Your task to perform on an android device: Open privacy settings Image 0: 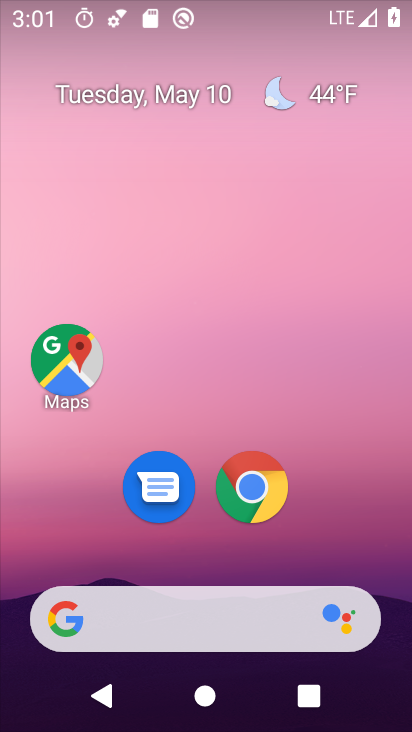
Step 0: click (247, 481)
Your task to perform on an android device: Open privacy settings Image 1: 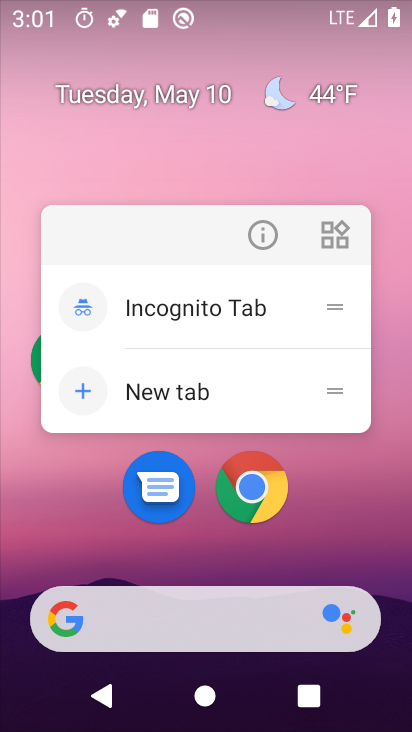
Step 1: click (253, 482)
Your task to perform on an android device: Open privacy settings Image 2: 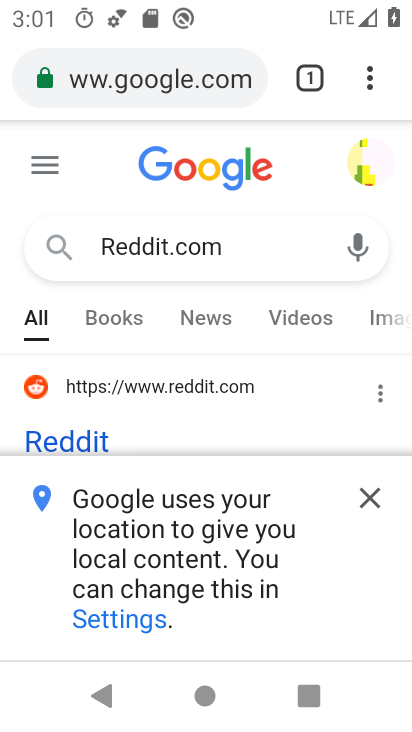
Step 2: click (370, 74)
Your task to perform on an android device: Open privacy settings Image 3: 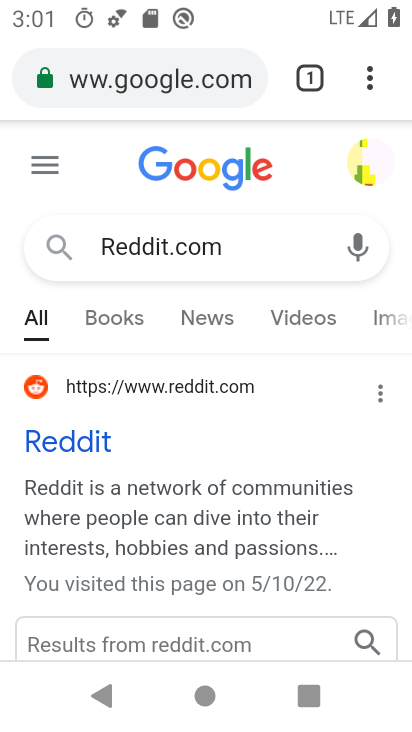
Step 3: click (368, 75)
Your task to perform on an android device: Open privacy settings Image 4: 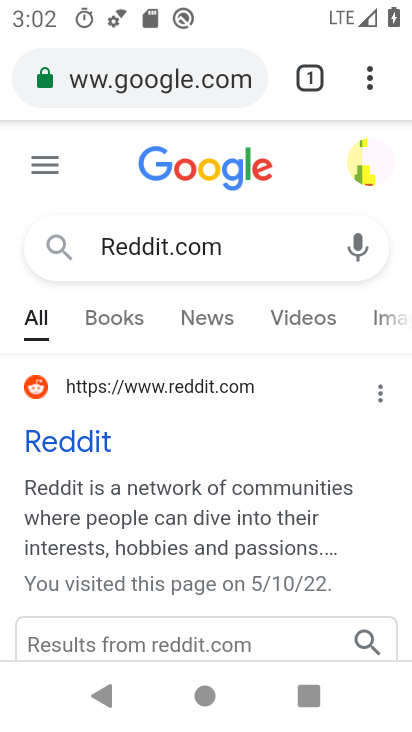
Step 4: click (369, 76)
Your task to perform on an android device: Open privacy settings Image 5: 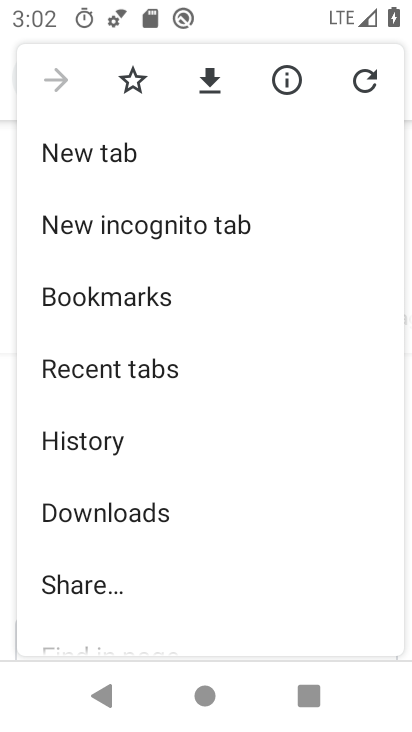
Step 5: drag from (279, 595) to (307, 362)
Your task to perform on an android device: Open privacy settings Image 6: 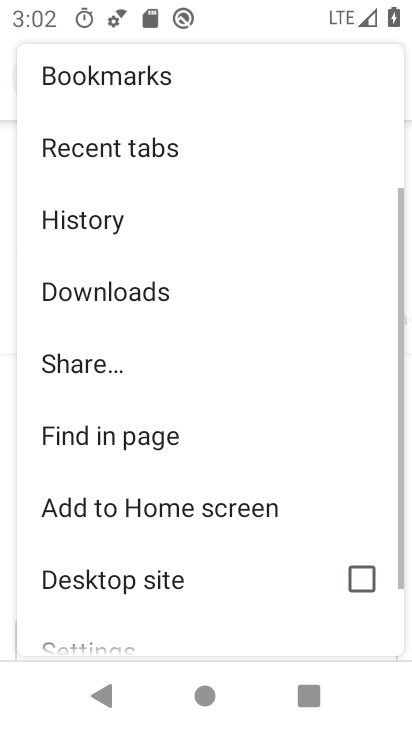
Step 6: drag from (270, 599) to (289, 279)
Your task to perform on an android device: Open privacy settings Image 7: 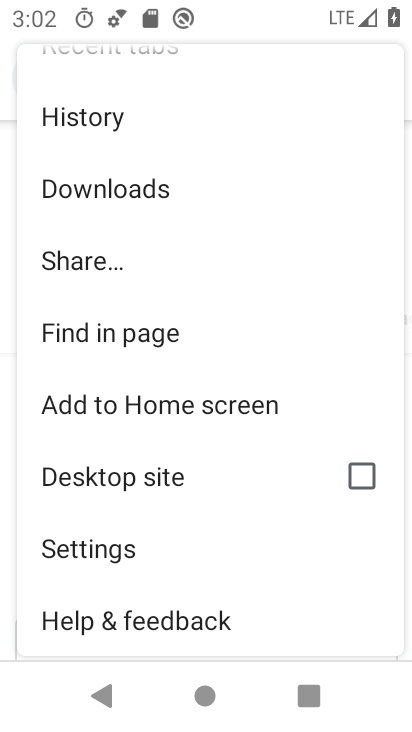
Step 7: click (77, 545)
Your task to perform on an android device: Open privacy settings Image 8: 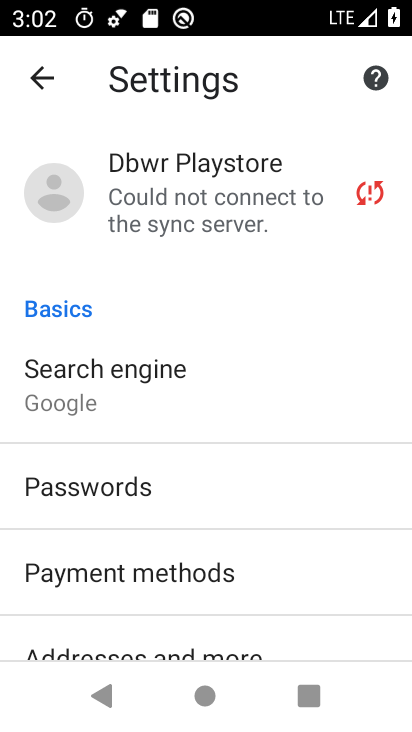
Step 8: drag from (298, 611) to (342, 326)
Your task to perform on an android device: Open privacy settings Image 9: 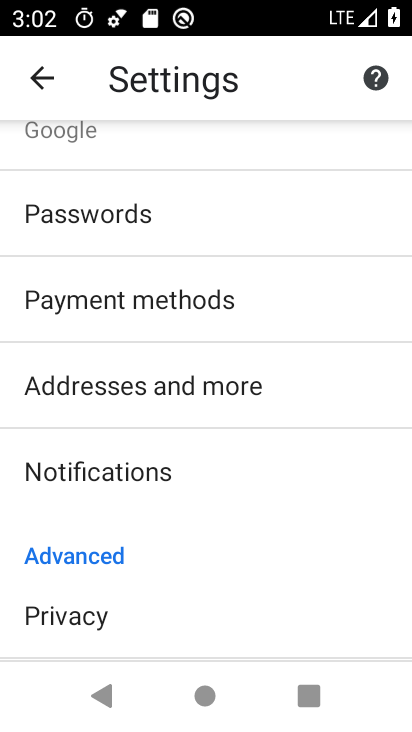
Step 9: click (66, 629)
Your task to perform on an android device: Open privacy settings Image 10: 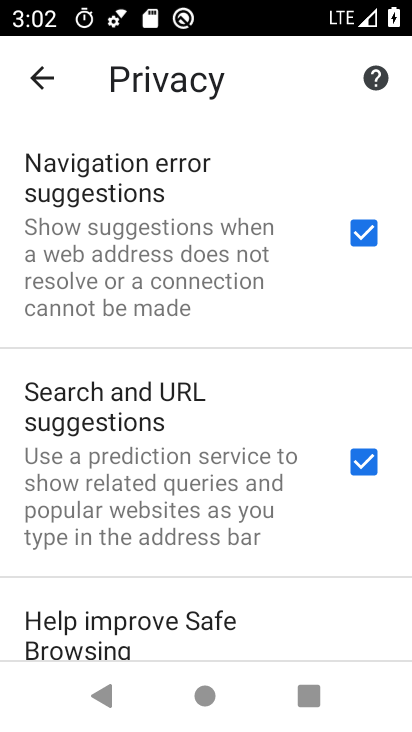
Step 10: task complete